Your task to perform on an android device: What's the weather? Image 0: 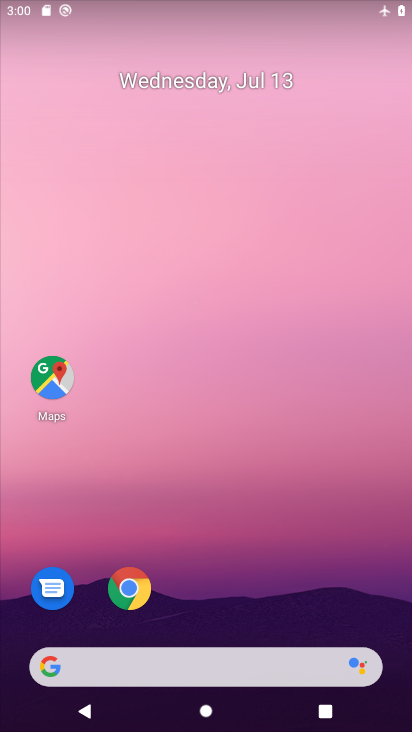
Step 0: click (219, 660)
Your task to perform on an android device: What's the weather? Image 1: 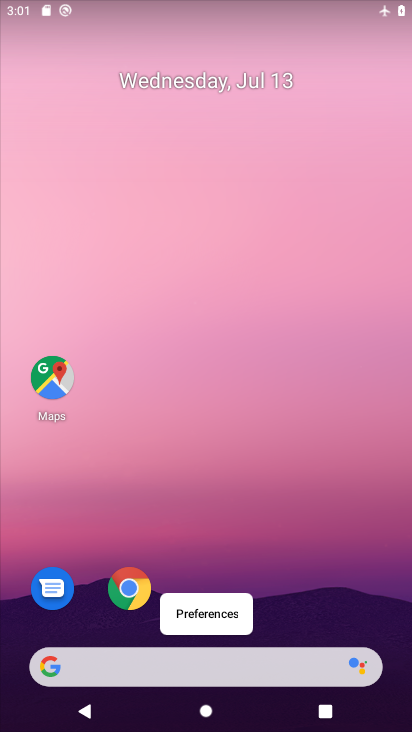
Step 1: click (219, 668)
Your task to perform on an android device: What's the weather? Image 2: 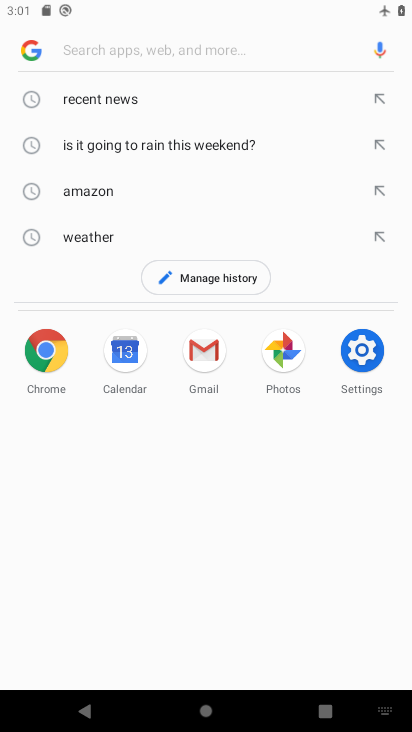
Step 2: click (96, 241)
Your task to perform on an android device: What's the weather? Image 3: 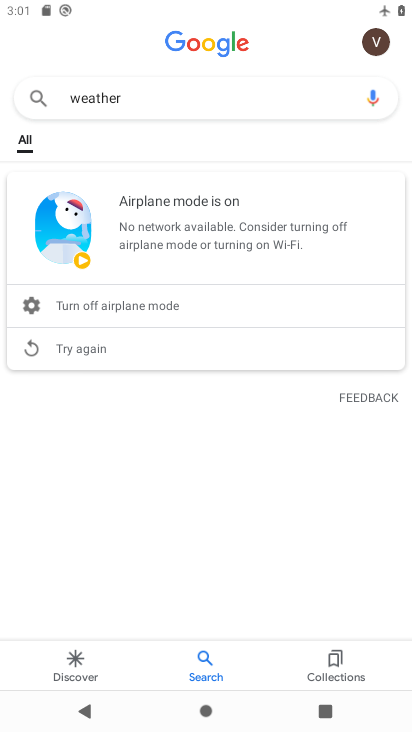
Step 3: task complete